Your task to perform on an android device: clear history in the chrome app Image 0: 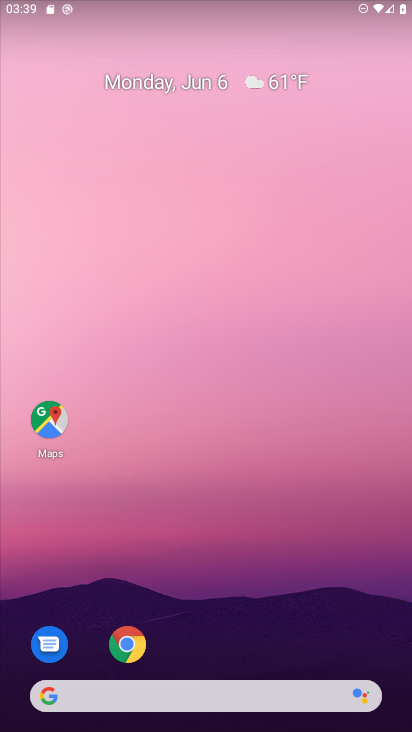
Step 0: click (140, 643)
Your task to perform on an android device: clear history in the chrome app Image 1: 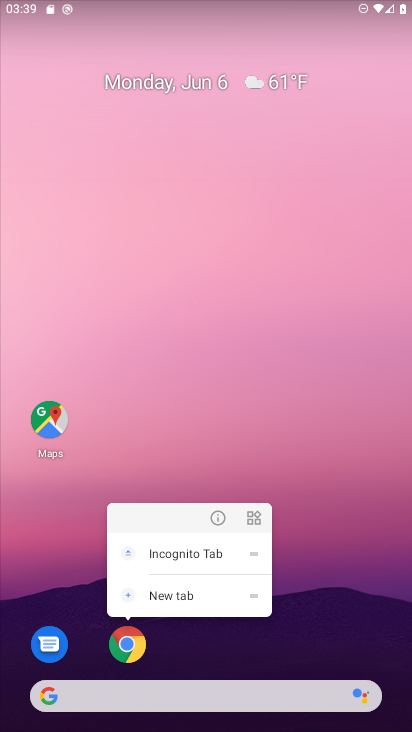
Step 1: click (140, 643)
Your task to perform on an android device: clear history in the chrome app Image 2: 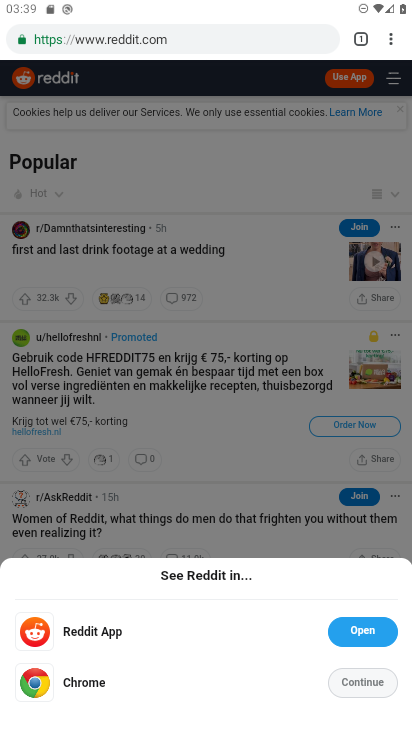
Step 2: click (392, 38)
Your task to perform on an android device: clear history in the chrome app Image 3: 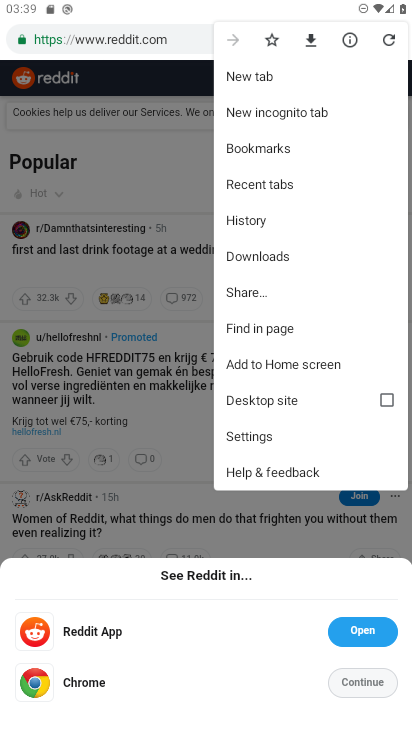
Step 3: click (258, 217)
Your task to perform on an android device: clear history in the chrome app Image 4: 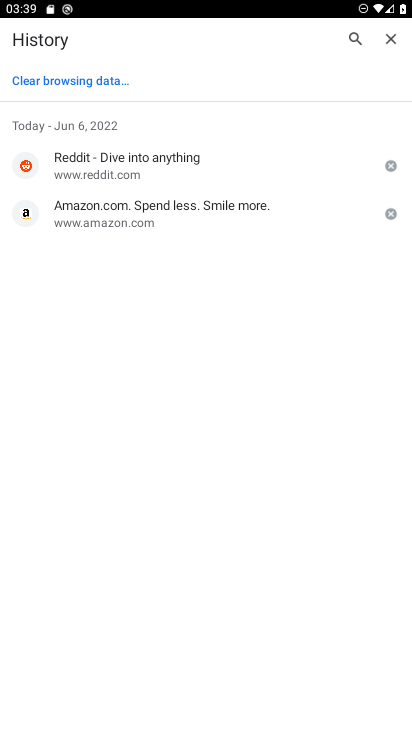
Step 4: click (76, 79)
Your task to perform on an android device: clear history in the chrome app Image 5: 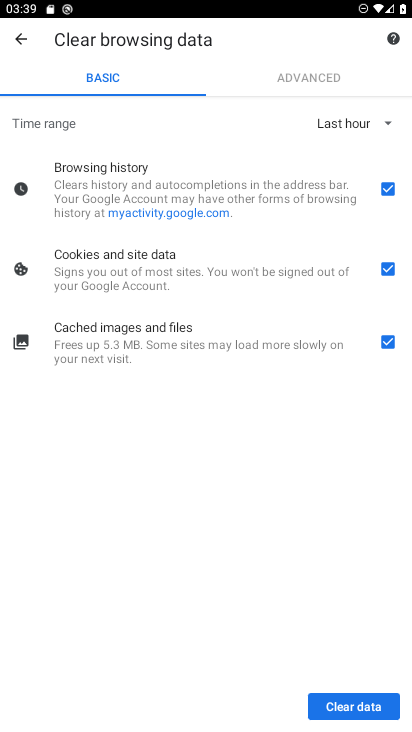
Step 5: click (391, 268)
Your task to perform on an android device: clear history in the chrome app Image 6: 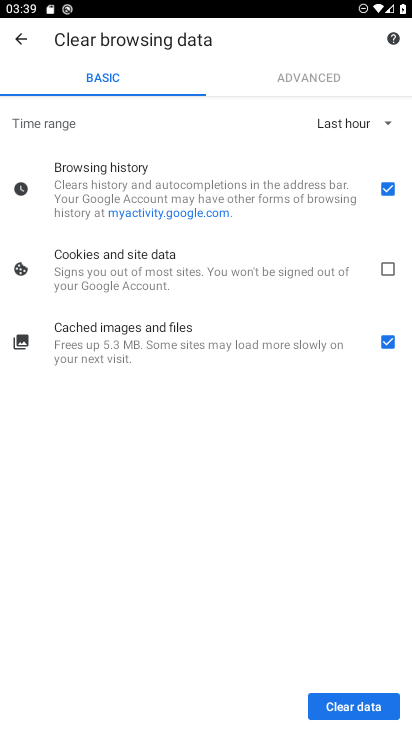
Step 6: click (378, 341)
Your task to perform on an android device: clear history in the chrome app Image 7: 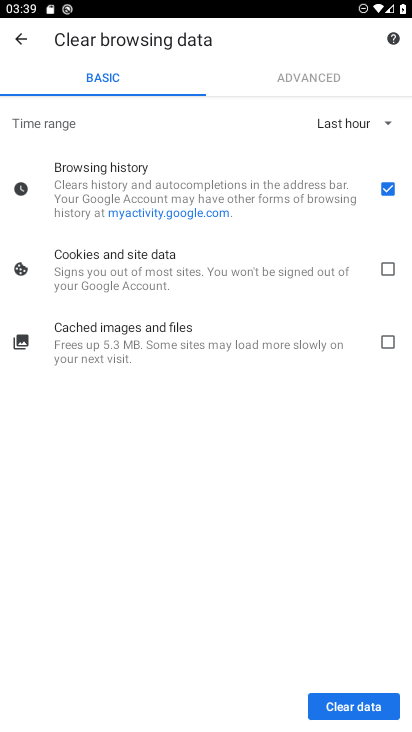
Step 7: click (334, 707)
Your task to perform on an android device: clear history in the chrome app Image 8: 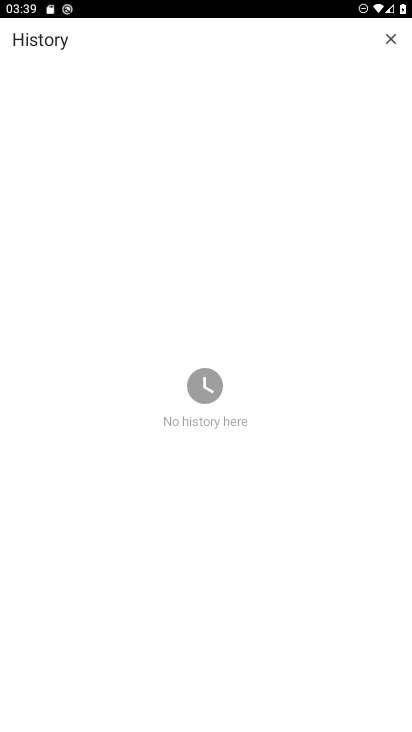
Step 8: task complete